Your task to perform on an android device: read, delete, or share a saved page in the chrome app Image 0: 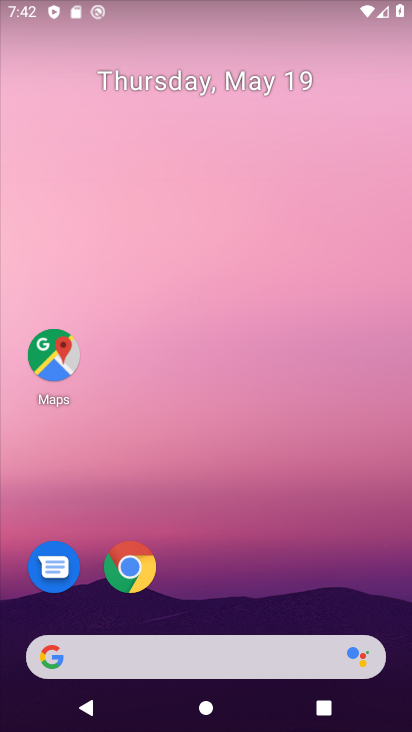
Step 0: click (205, 610)
Your task to perform on an android device: read, delete, or share a saved page in the chrome app Image 1: 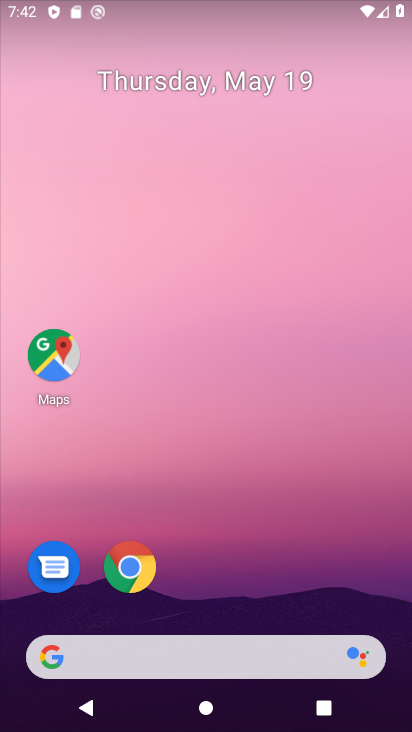
Step 1: click (141, 564)
Your task to perform on an android device: read, delete, or share a saved page in the chrome app Image 2: 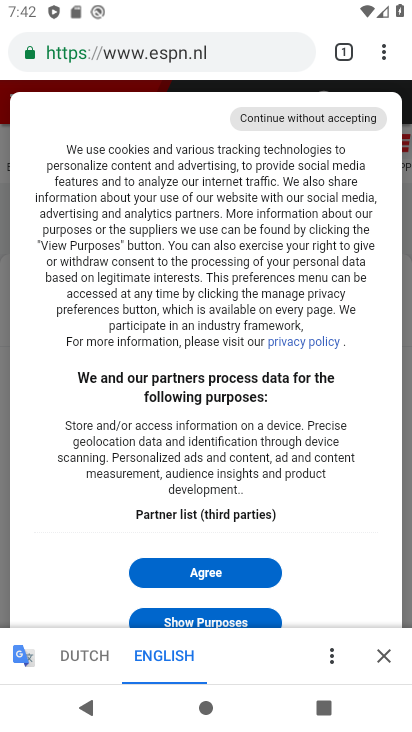
Step 2: click (387, 46)
Your task to perform on an android device: read, delete, or share a saved page in the chrome app Image 3: 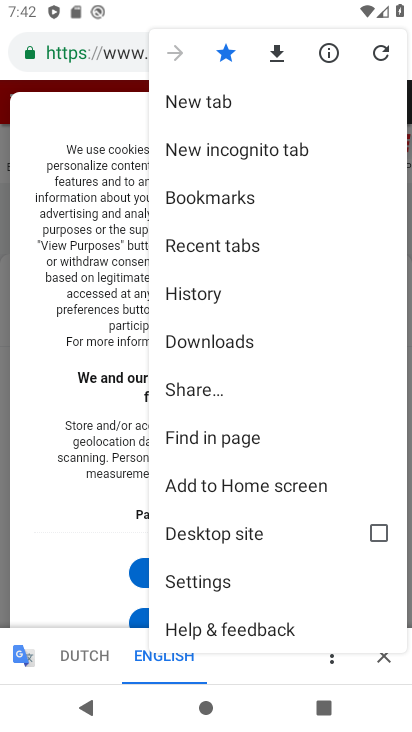
Step 3: click (228, 356)
Your task to perform on an android device: read, delete, or share a saved page in the chrome app Image 4: 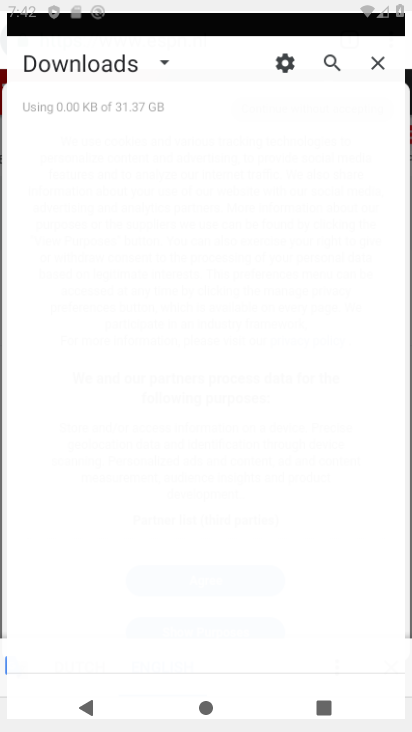
Step 4: click (224, 350)
Your task to perform on an android device: read, delete, or share a saved page in the chrome app Image 5: 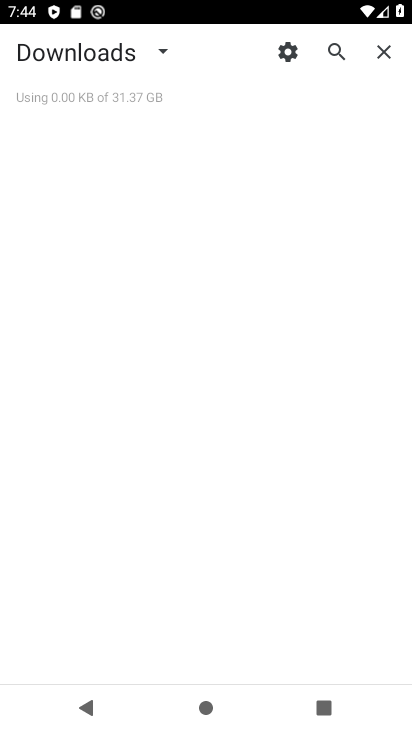
Step 5: task complete